Your task to perform on an android device: Open Chrome and go to settings Image 0: 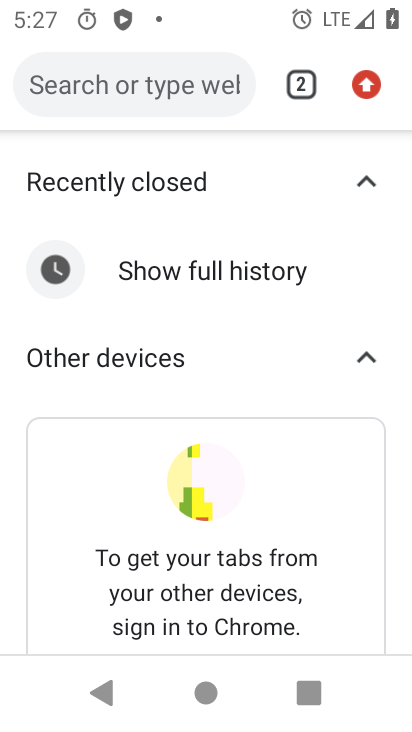
Step 0: press home button
Your task to perform on an android device: Open Chrome and go to settings Image 1: 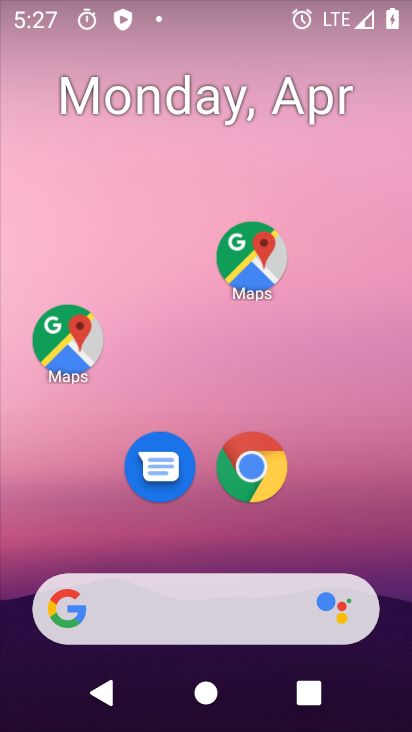
Step 1: drag from (294, 586) to (353, 42)
Your task to perform on an android device: Open Chrome and go to settings Image 2: 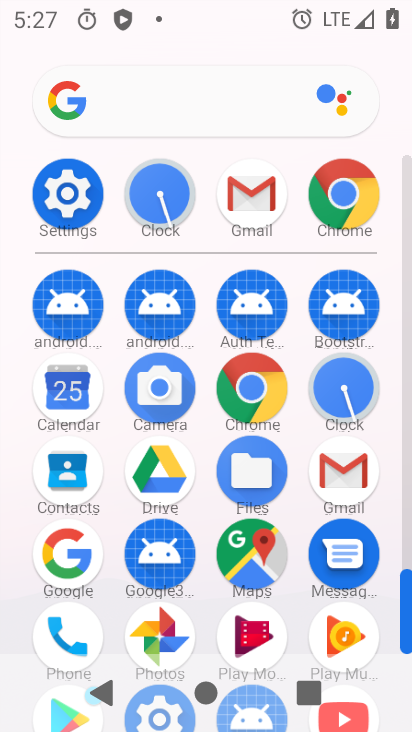
Step 2: click (282, 391)
Your task to perform on an android device: Open Chrome and go to settings Image 3: 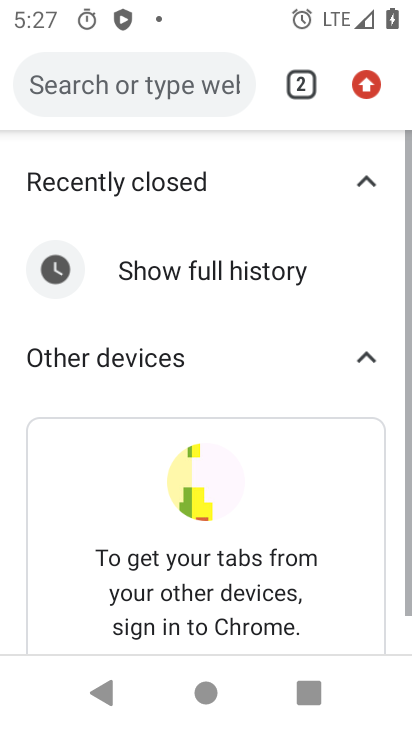
Step 3: task complete